Your task to perform on an android device: Open the web browser Image 0: 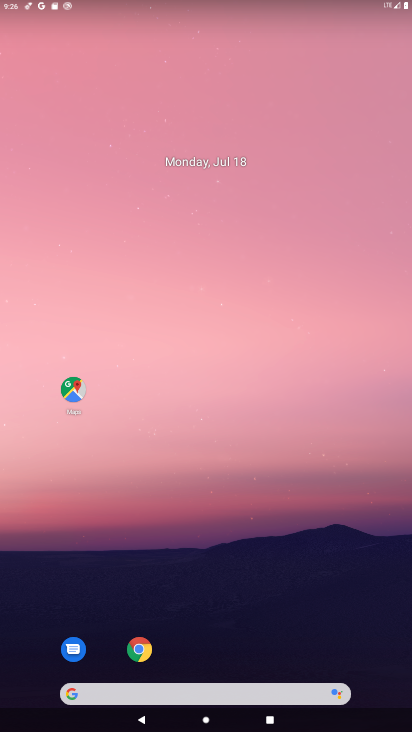
Step 0: click (142, 648)
Your task to perform on an android device: Open the web browser Image 1: 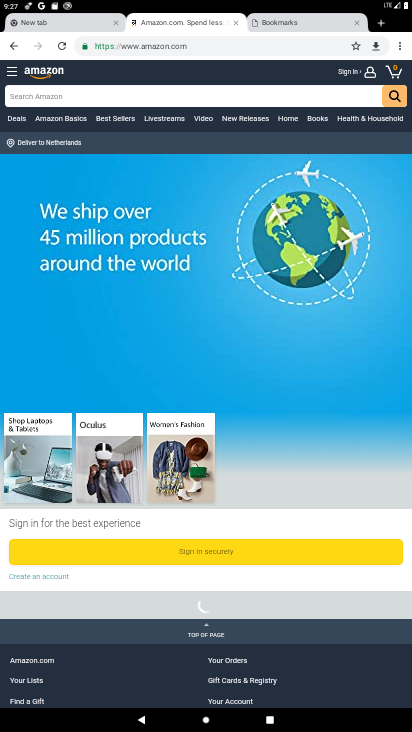
Step 1: task complete